Your task to perform on an android device: toggle translation in the chrome app Image 0: 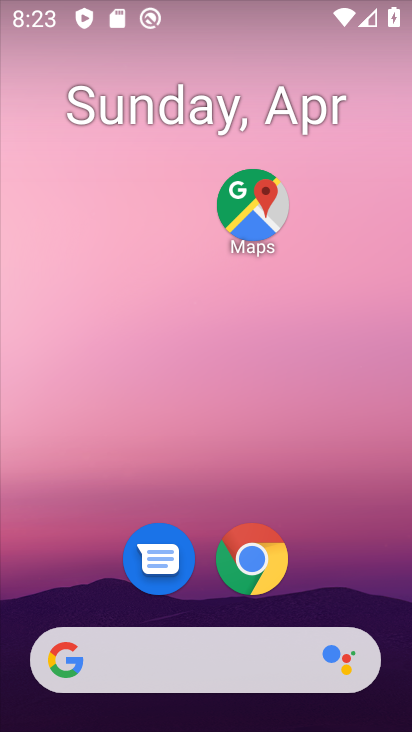
Step 0: click (268, 567)
Your task to perform on an android device: toggle translation in the chrome app Image 1: 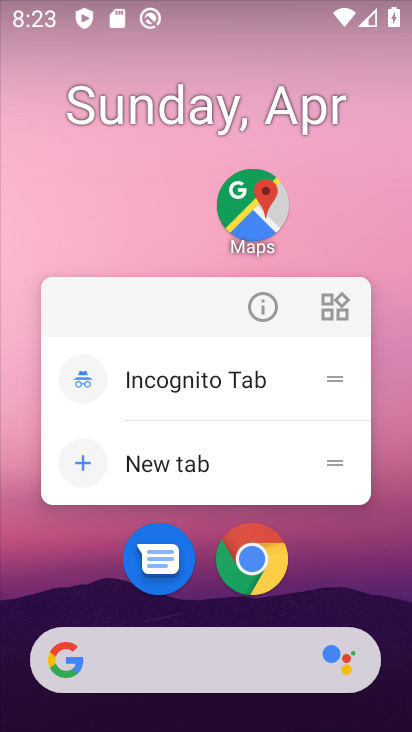
Step 1: click (255, 306)
Your task to perform on an android device: toggle translation in the chrome app Image 2: 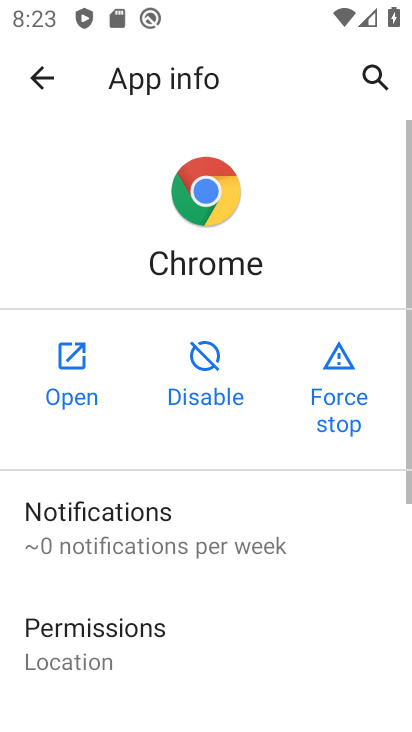
Step 2: click (86, 362)
Your task to perform on an android device: toggle translation in the chrome app Image 3: 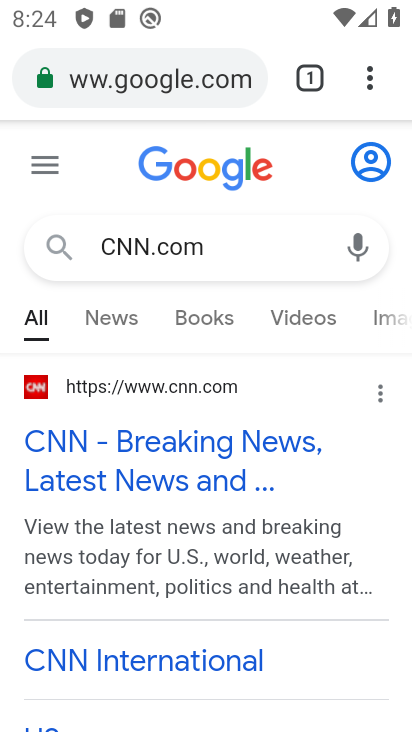
Step 3: click (369, 60)
Your task to perform on an android device: toggle translation in the chrome app Image 4: 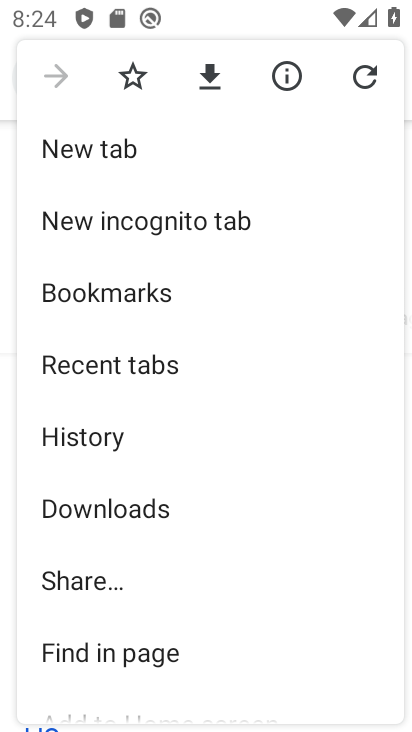
Step 4: drag from (133, 609) to (332, 145)
Your task to perform on an android device: toggle translation in the chrome app Image 5: 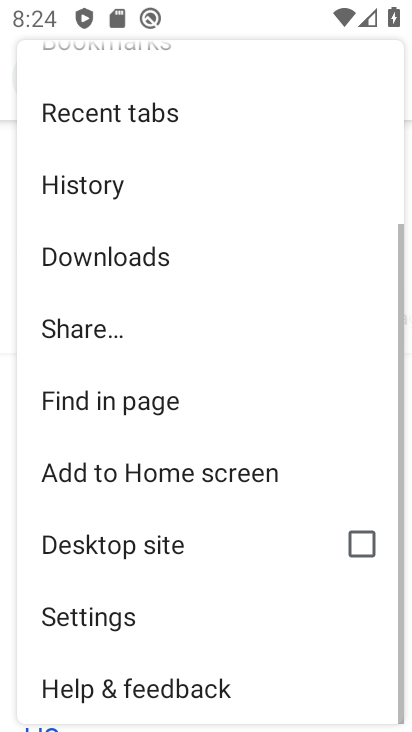
Step 5: click (102, 615)
Your task to perform on an android device: toggle translation in the chrome app Image 6: 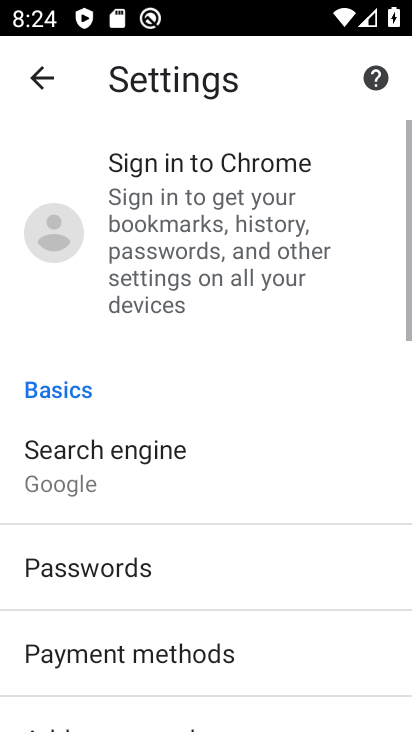
Step 6: drag from (269, 664) to (403, 237)
Your task to perform on an android device: toggle translation in the chrome app Image 7: 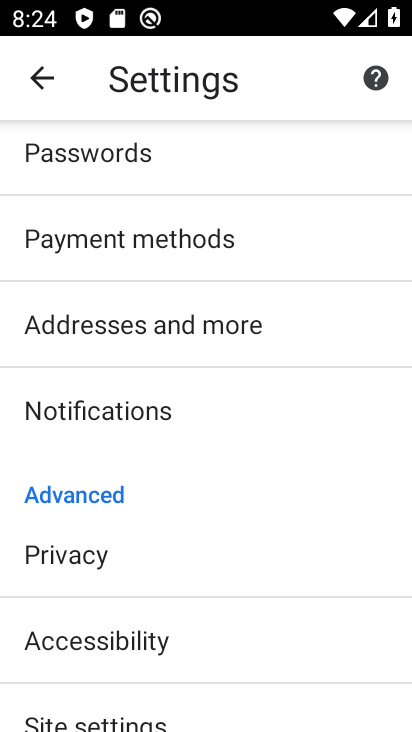
Step 7: drag from (151, 662) to (313, 251)
Your task to perform on an android device: toggle translation in the chrome app Image 8: 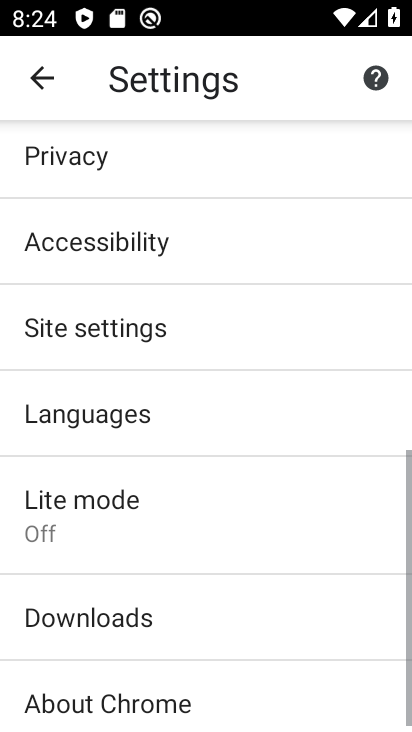
Step 8: drag from (158, 564) to (245, 280)
Your task to perform on an android device: toggle translation in the chrome app Image 9: 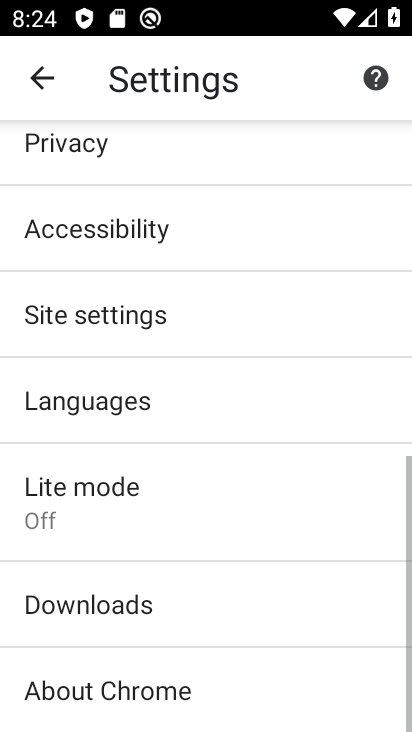
Step 9: click (110, 401)
Your task to perform on an android device: toggle translation in the chrome app Image 10: 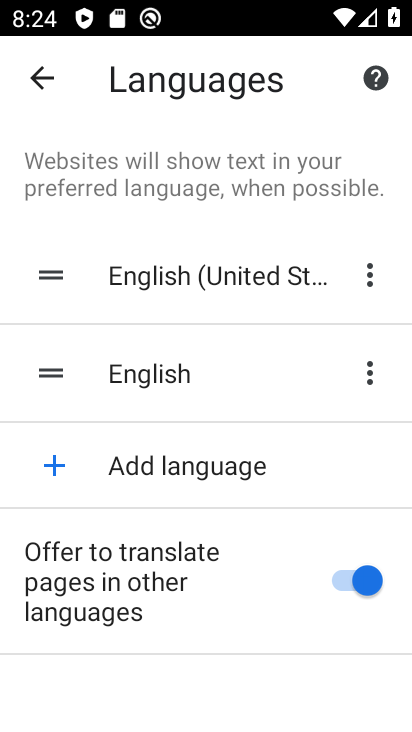
Step 10: click (372, 591)
Your task to perform on an android device: toggle translation in the chrome app Image 11: 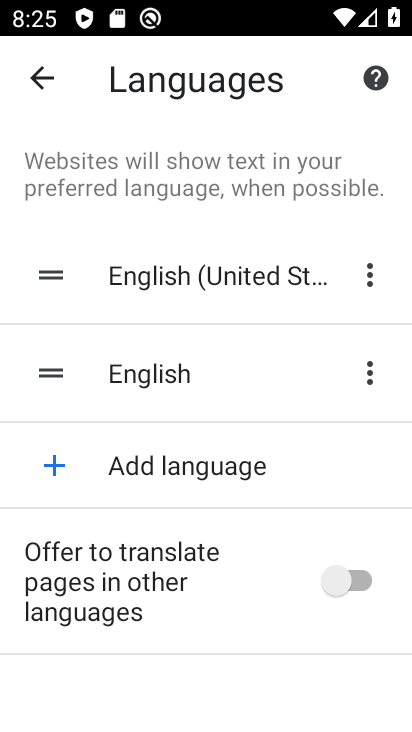
Step 11: task complete